Your task to perform on an android device: How old is the earth? Image 0: 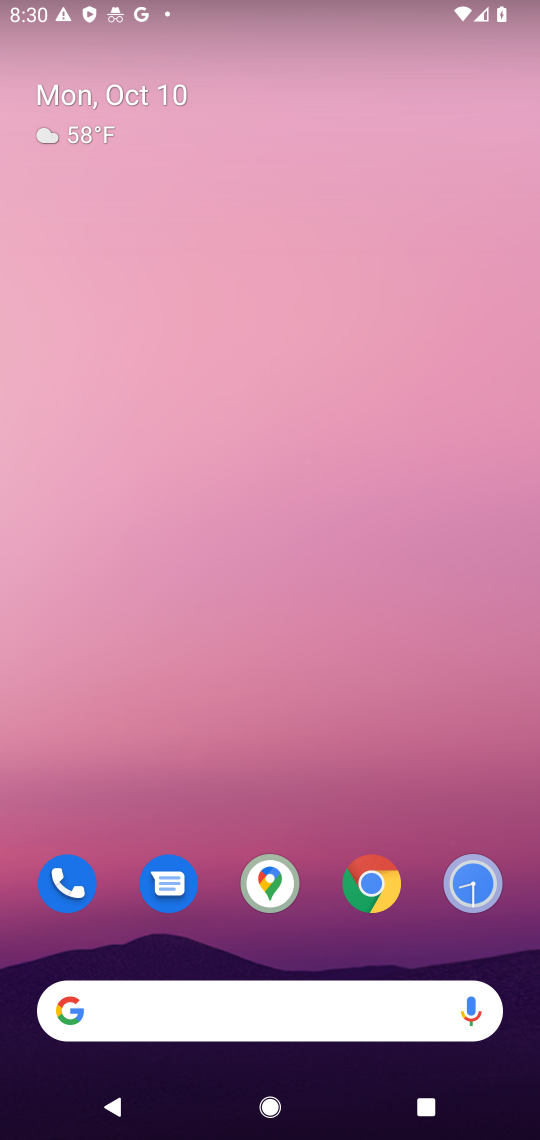
Step 0: drag from (335, 969) to (392, 111)
Your task to perform on an android device: How old is the earth? Image 1: 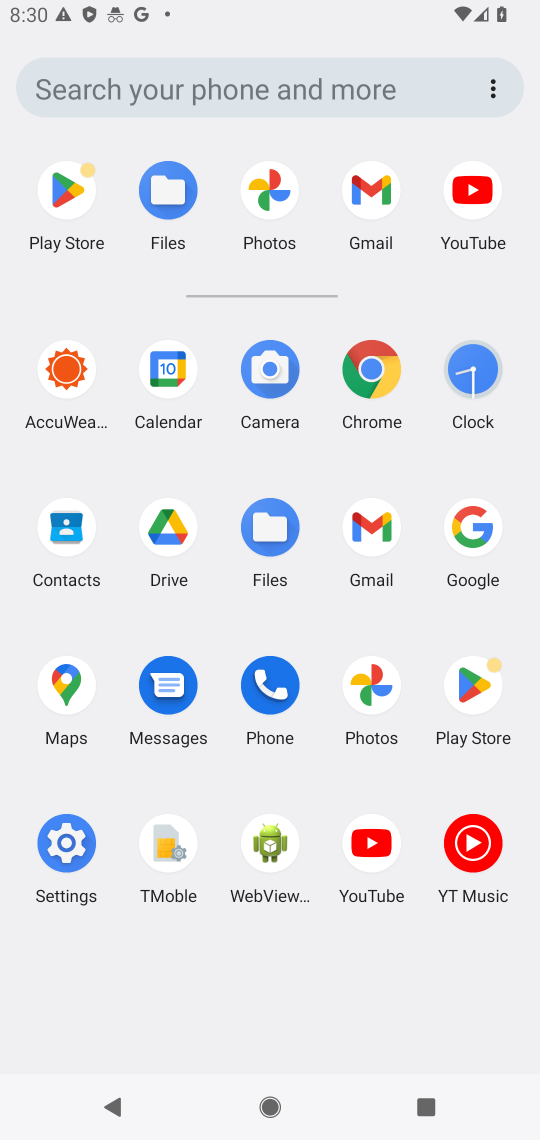
Step 1: click (477, 554)
Your task to perform on an android device: How old is the earth? Image 2: 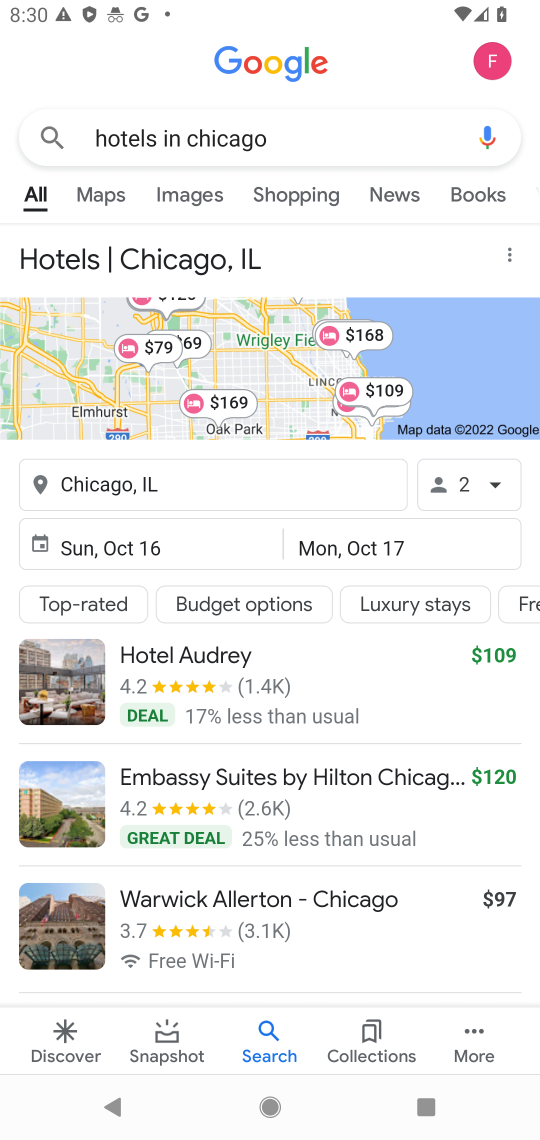
Step 2: click (402, 142)
Your task to perform on an android device: How old is the earth? Image 3: 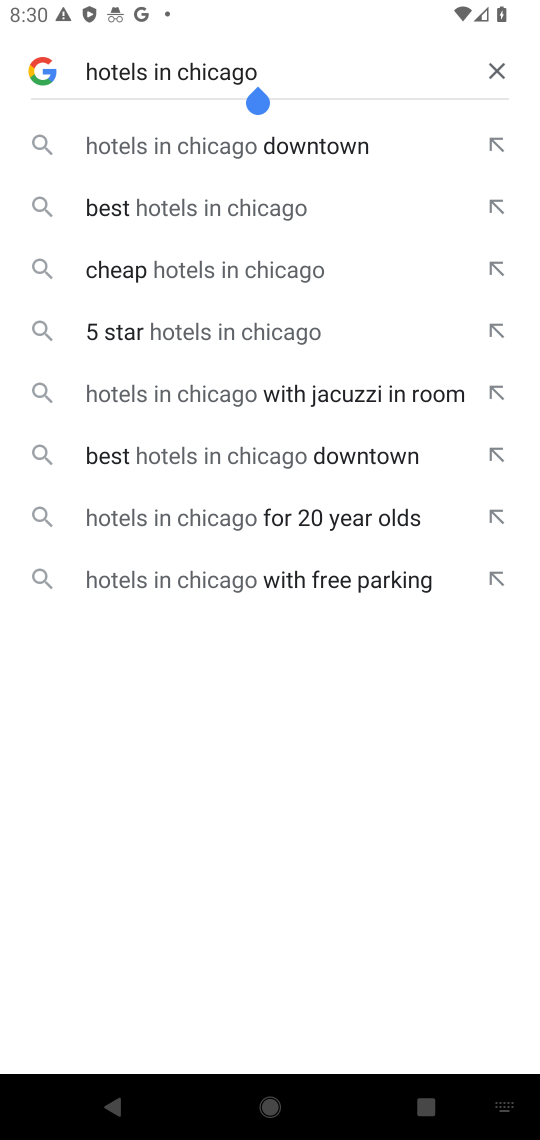
Step 3: click (489, 60)
Your task to perform on an android device: How old is the earth? Image 4: 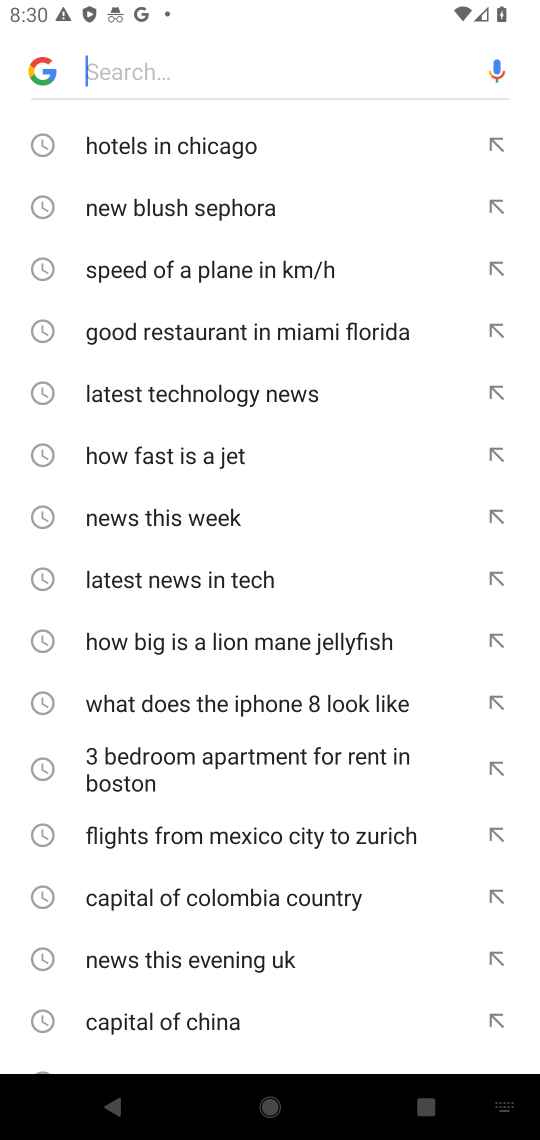
Step 4: type "How old is the earth?"
Your task to perform on an android device: How old is the earth? Image 5: 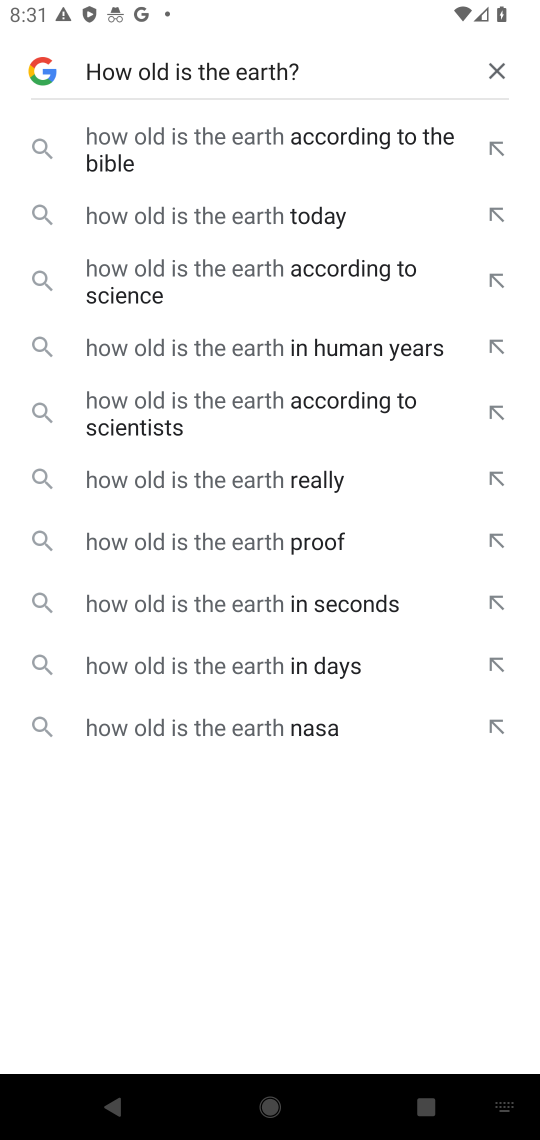
Step 5: click (276, 234)
Your task to perform on an android device: How old is the earth? Image 6: 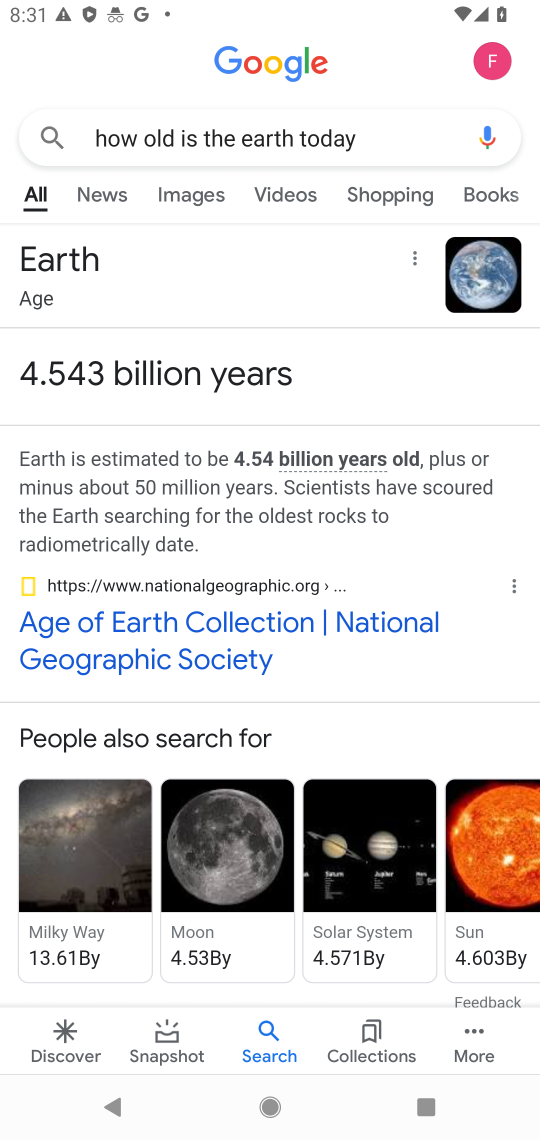
Step 6: task complete